Your task to perform on an android device: change timer sound Image 0: 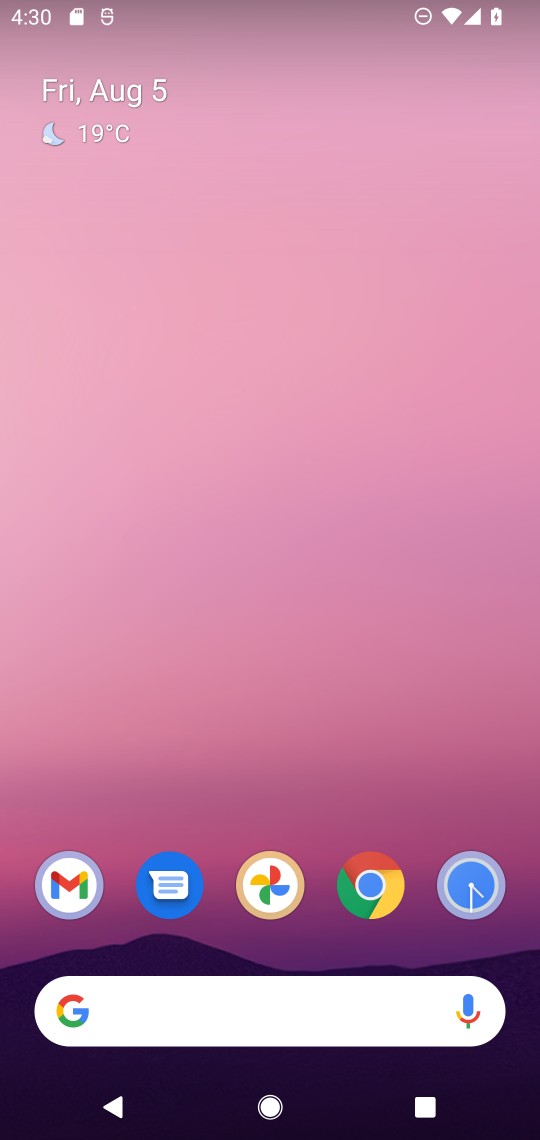
Step 0: drag from (312, 885) to (331, 181)
Your task to perform on an android device: change timer sound Image 1: 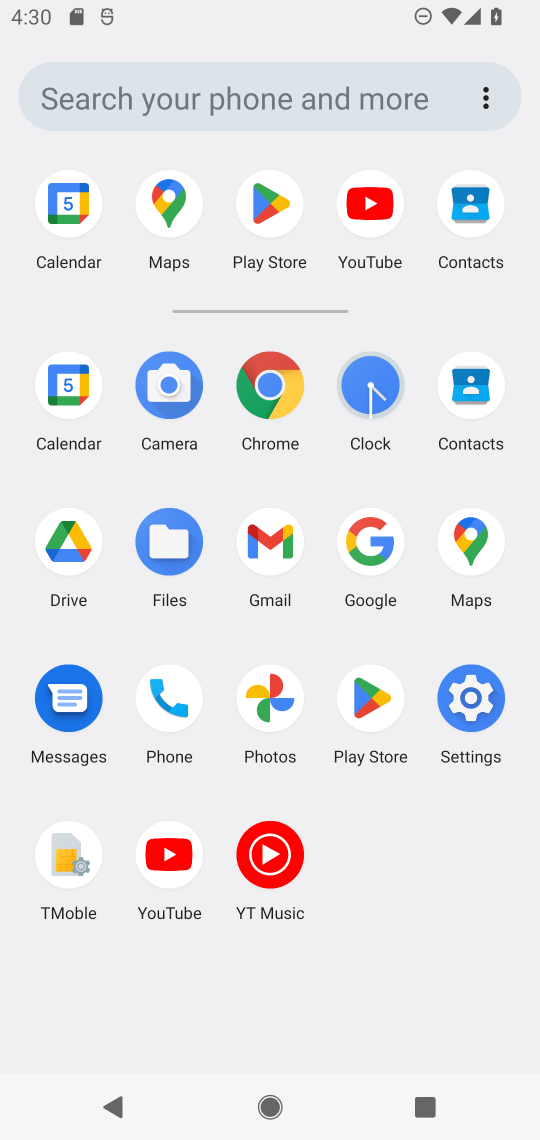
Step 1: click (374, 376)
Your task to perform on an android device: change timer sound Image 2: 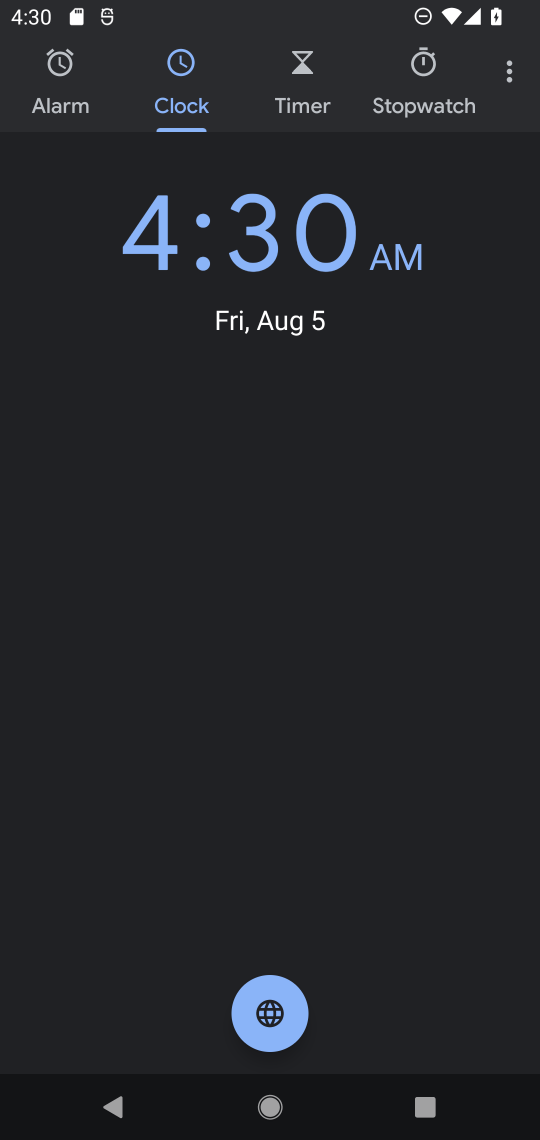
Step 2: click (509, 81)
Your task to perform on an android device: change timer sound Image 3: 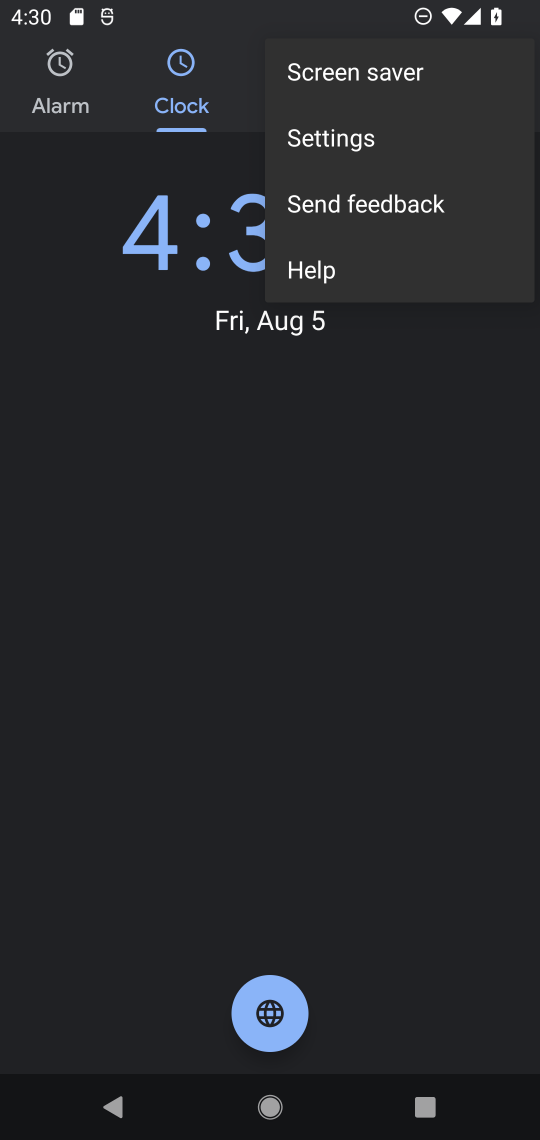
Step 3: click (327, 142)
Your task to perform on an android device: change timer sound Image 4: 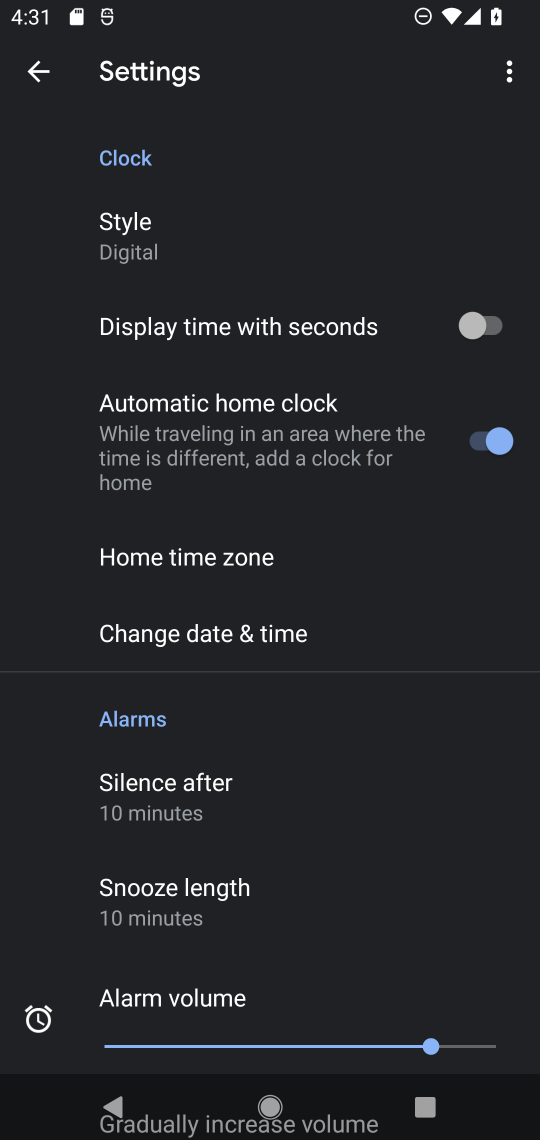
Step 4: drag from (268, 954) to (264, 658)
Your task to perform on an android device: change timer sound Image 5: 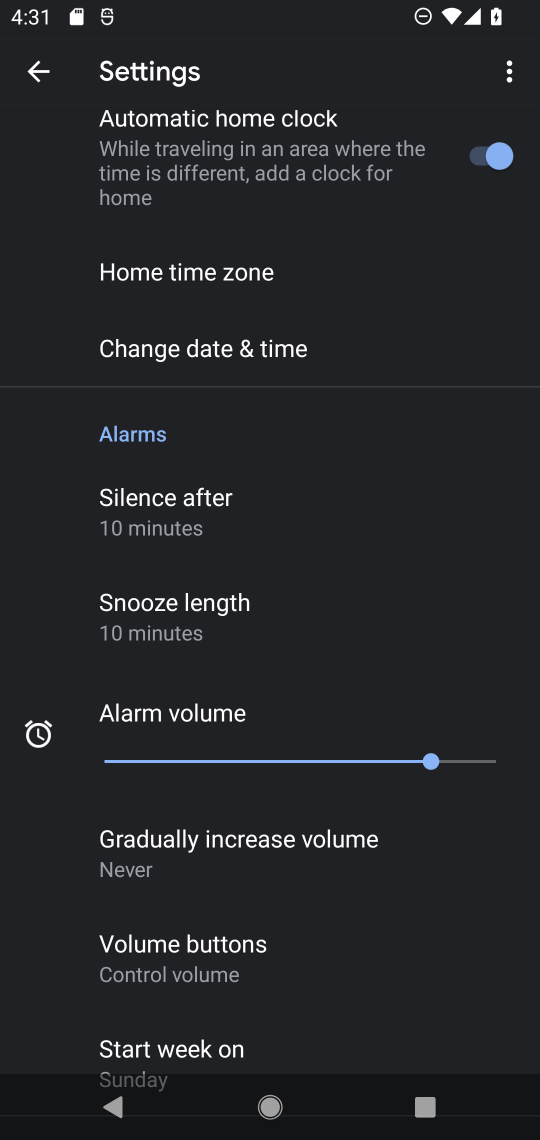
Step 5: drag from (290, 976) to (290, 778)
Your task to perform on an android device: change timer sound Image 6: 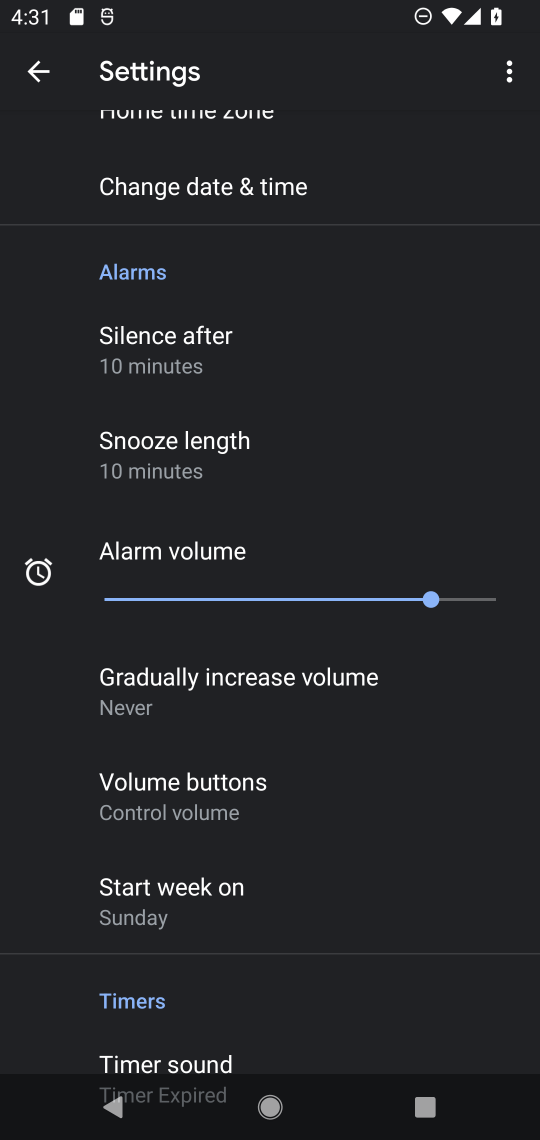
Step 6: drag from (247, 998) to (247, 773)
Your task to perform on an android device: change timer sound Image 7: 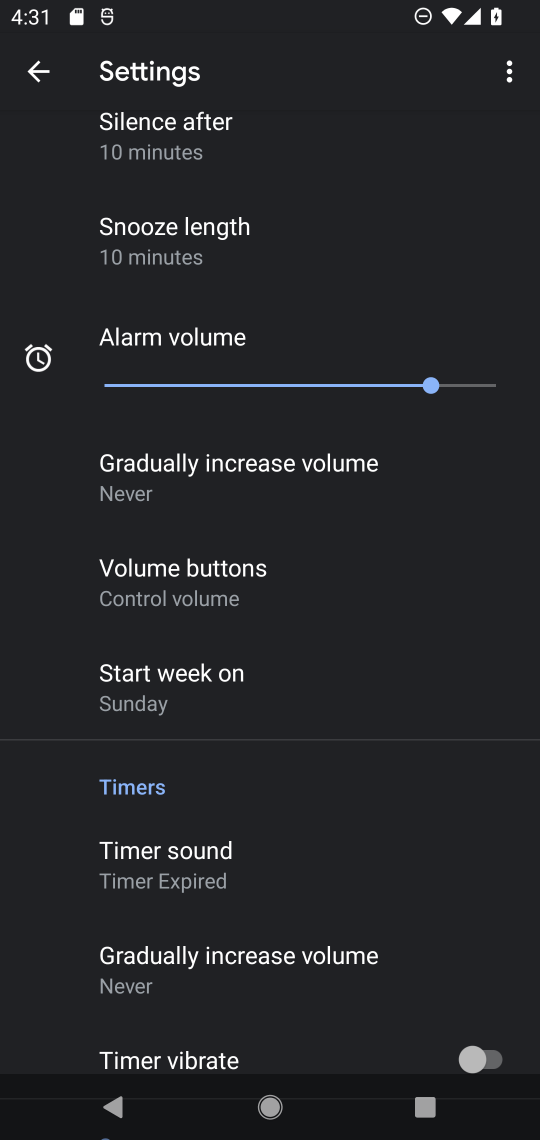
Step 7: click (217, 861)
Your task to perform on an android device: change timer sound Image 8: 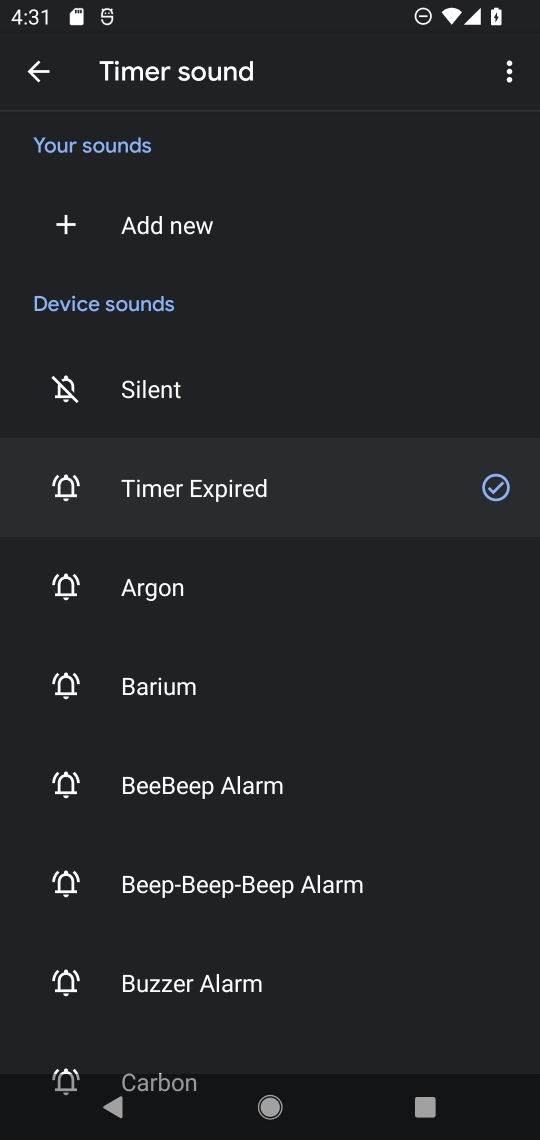
Step 8: click (149, 969)
Your task to perform on an android device: change timer sound Image 9: 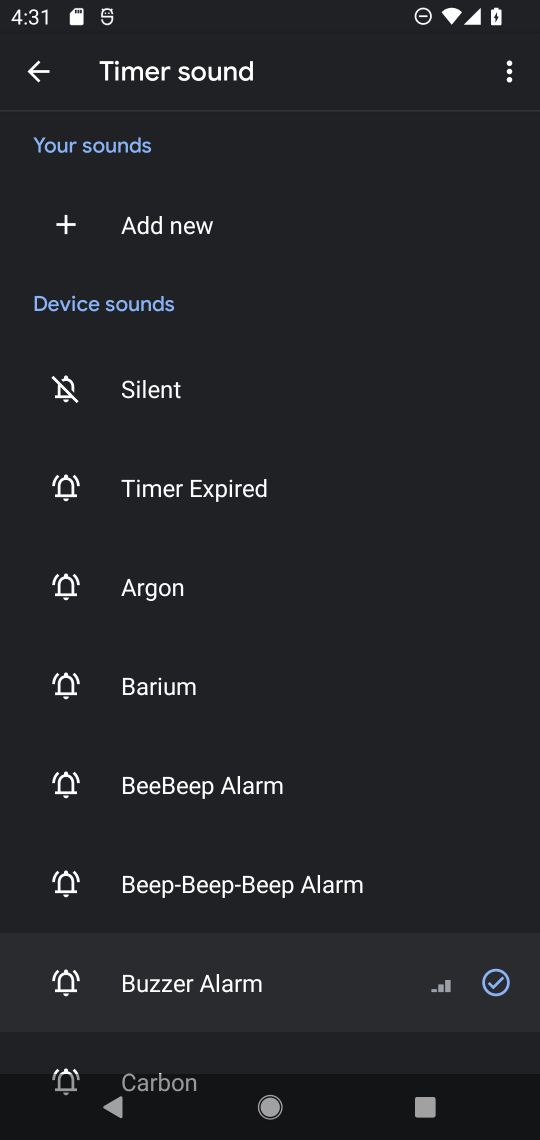
Step 9: task complete